Your task to perform on an android device: Go to Android settings Image 0: 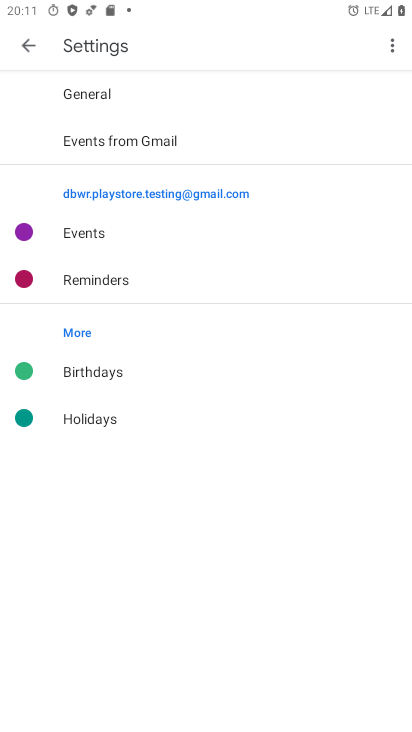
Step 0: press home button
Your task to perform on an android device: Go to Android settings Image 1: 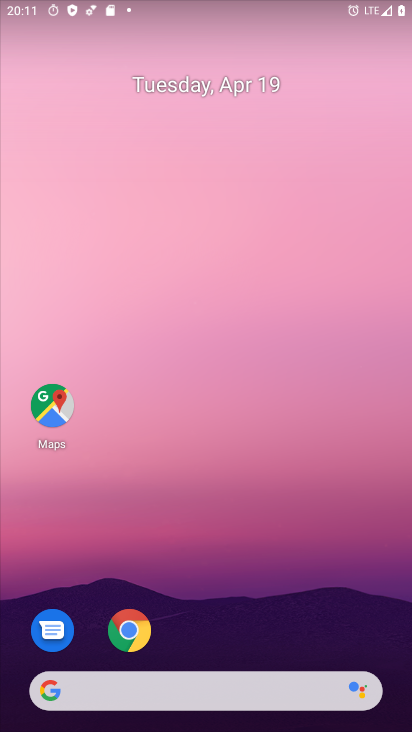
Step 1: drag from (236, 661) to (208, 32)
Your task to perform on an android device: Go to Android settings Image 2: 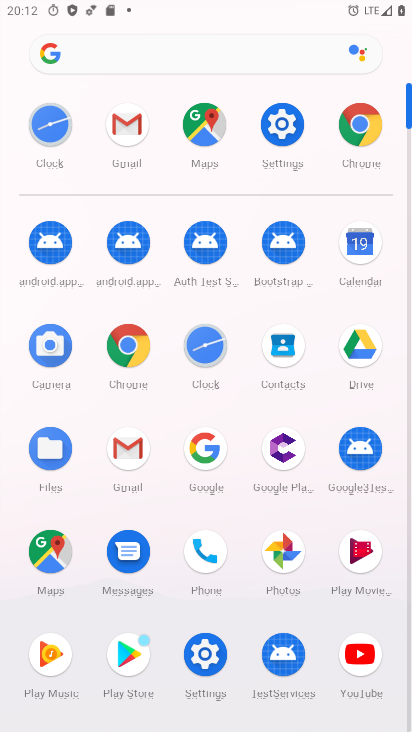
Step 2: click (272, 121)
Your task to perform on an android device: Go to Android settings Image 3: 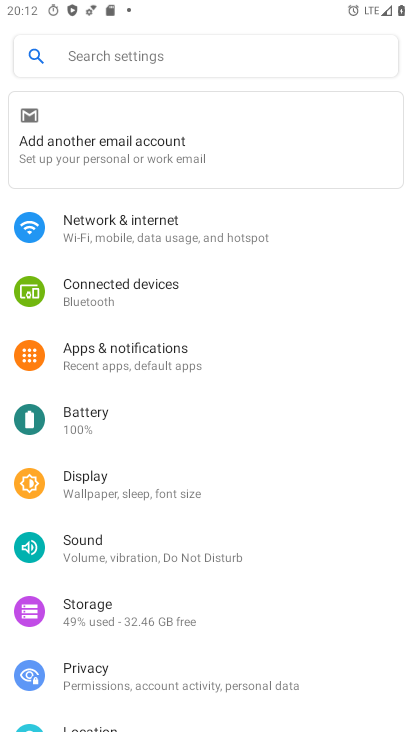
Step 3: task complete